Your task to perform on an android device: Play the last video I watched on Youtube Image 0: 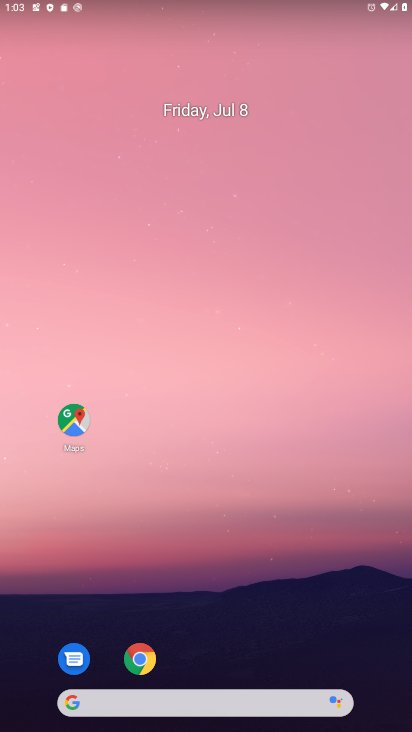
Step 0: drag from (236, 628) to (166, 115)
Your task to perform on an android device: Play the last video I watched on Youtube Image 1: 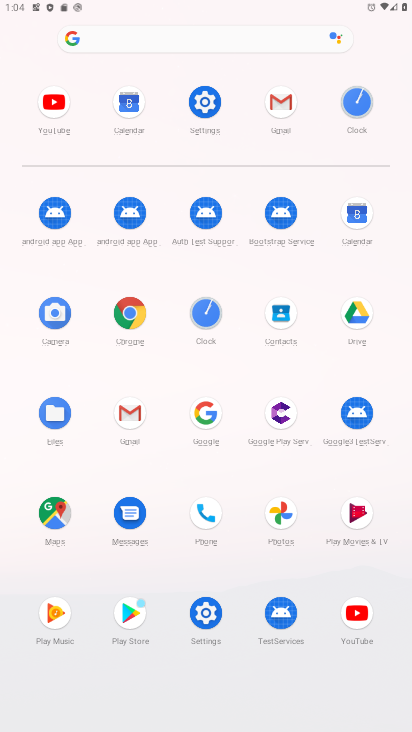
Step 1: click (347, 610)
Your task to perform on an android device: Play the last video I watched on Youtube Image 2: 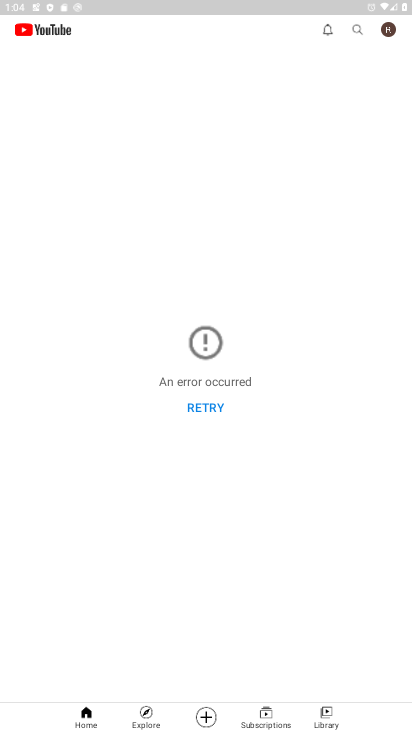
Step 2: click (203, 408)
Your task to perform on an android device: Play the last video I watched on Youtube Image 3: 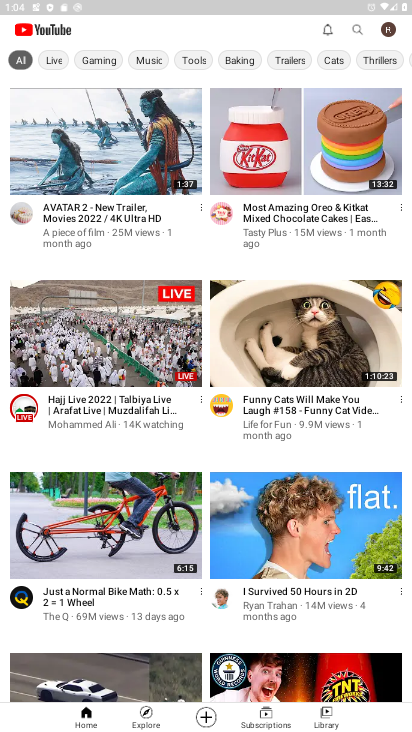
Step 3: click (328, 722)
Your task to perform on an android device: Play the last video I watched on Youtube Image 4: 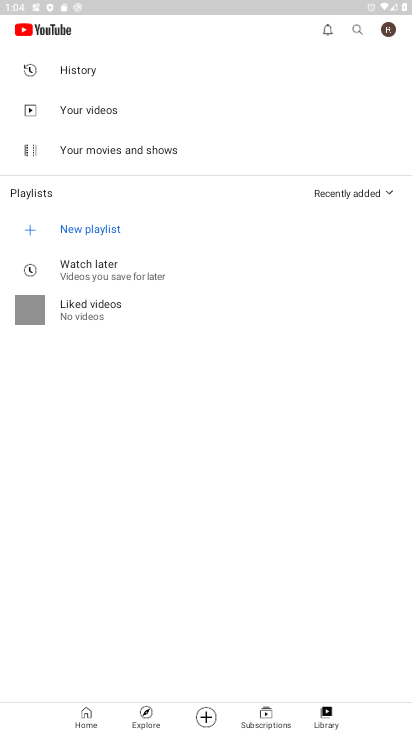
Step 4: click (86, 75)
Your task to perform on an android device: Play the last video I watched on Youtube Image 5: 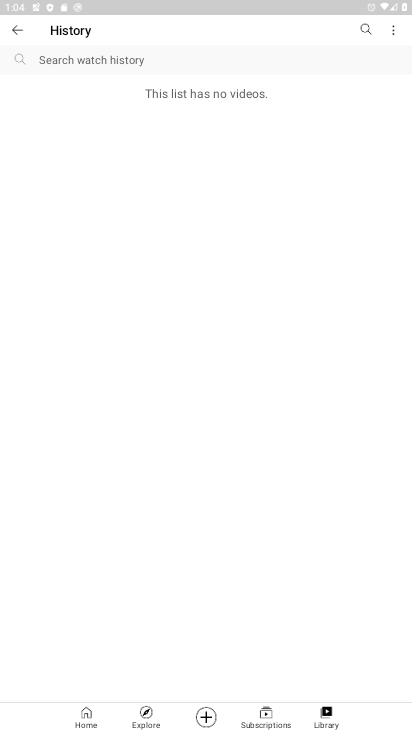
Step 5: task complete